Your task to perform on an android device: Add alienware aurora to the cart on costco.com Image 0: 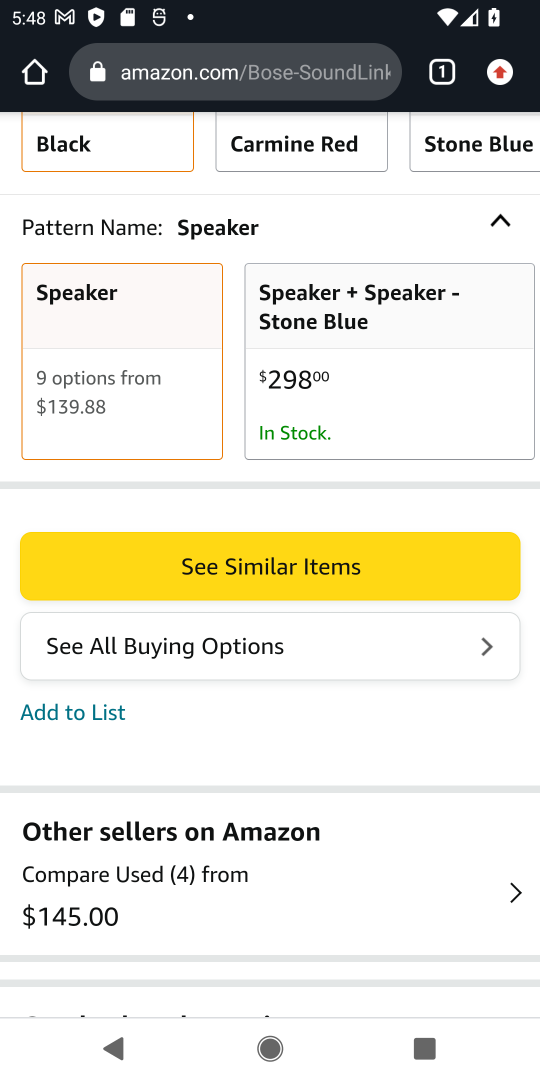
Step 0: press home button
Your task to perform on an android device: Add alienware aurora to the cart on costco.com Image 1: 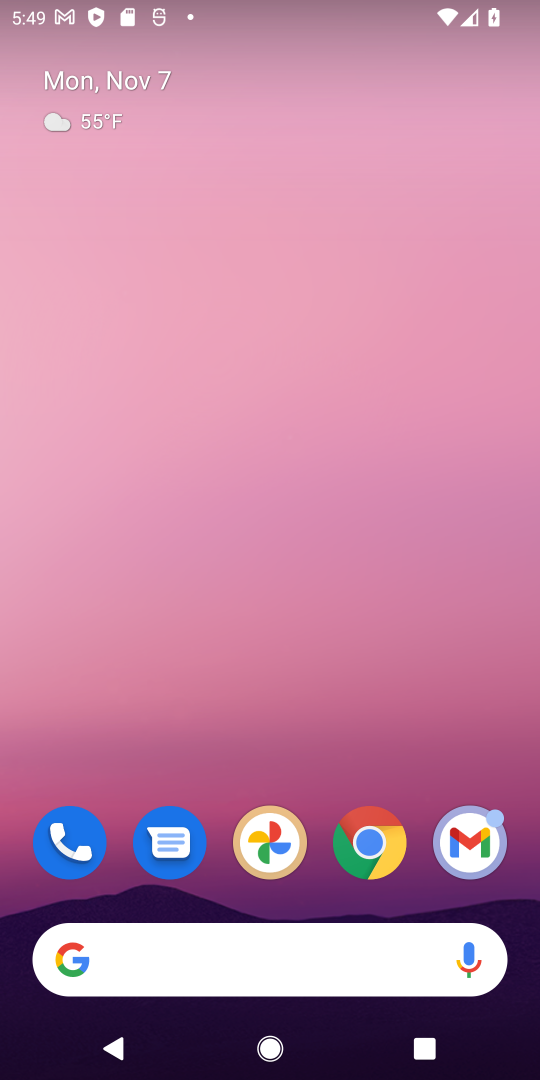
Step 1: click (181, 962)
Your task to perform on an android device: Add alienware aurora to the cart on costco.com Image 2: 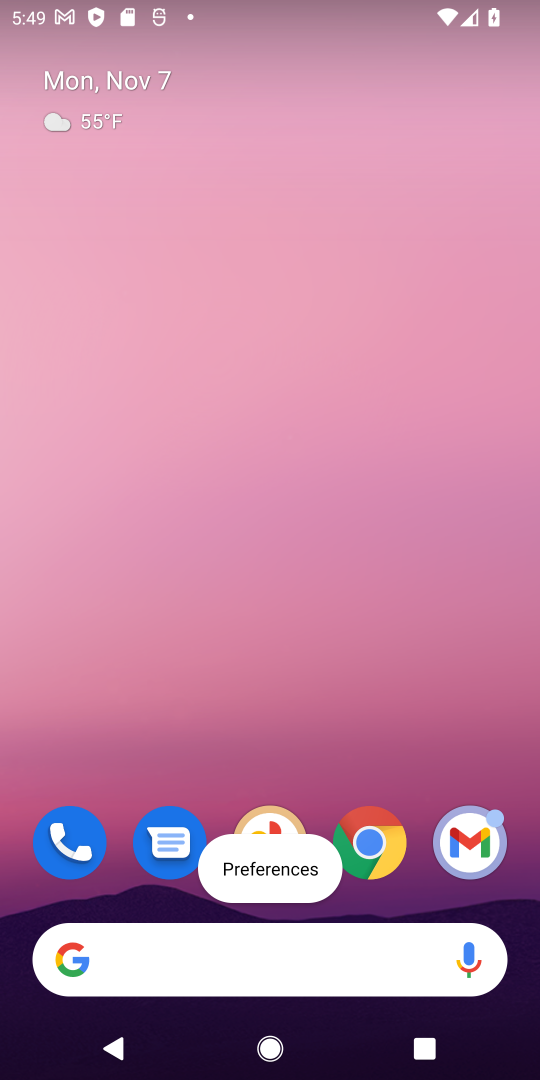
Step 2: click (140, 958)
Your task to perform on an android device: Add alienware aurora to the cart on costco.com Image 3: 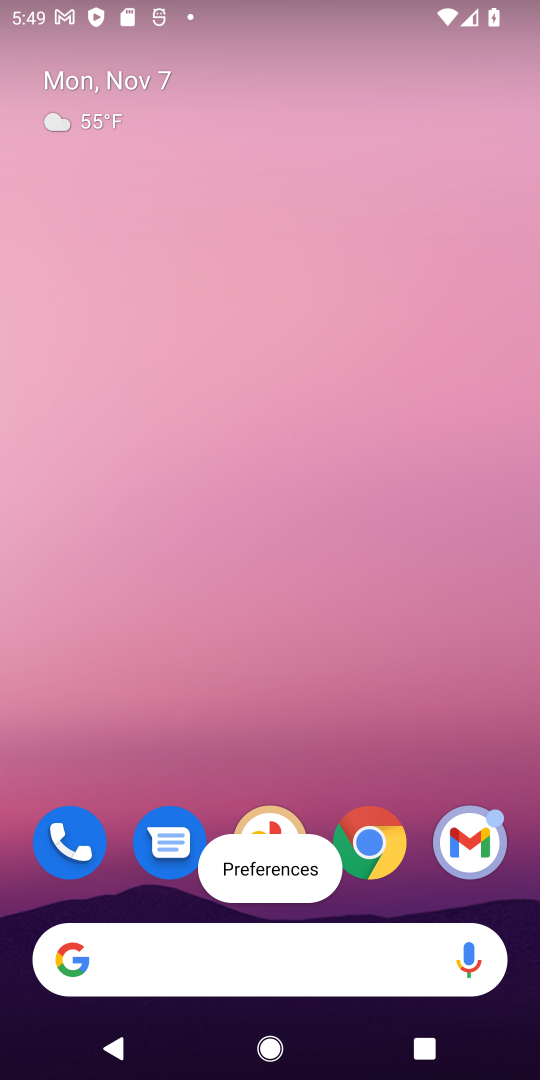
Step 3: click (132, 965)
Your task to perform on an android device: Add alienware aurora to the cart on costco.com Image 4: 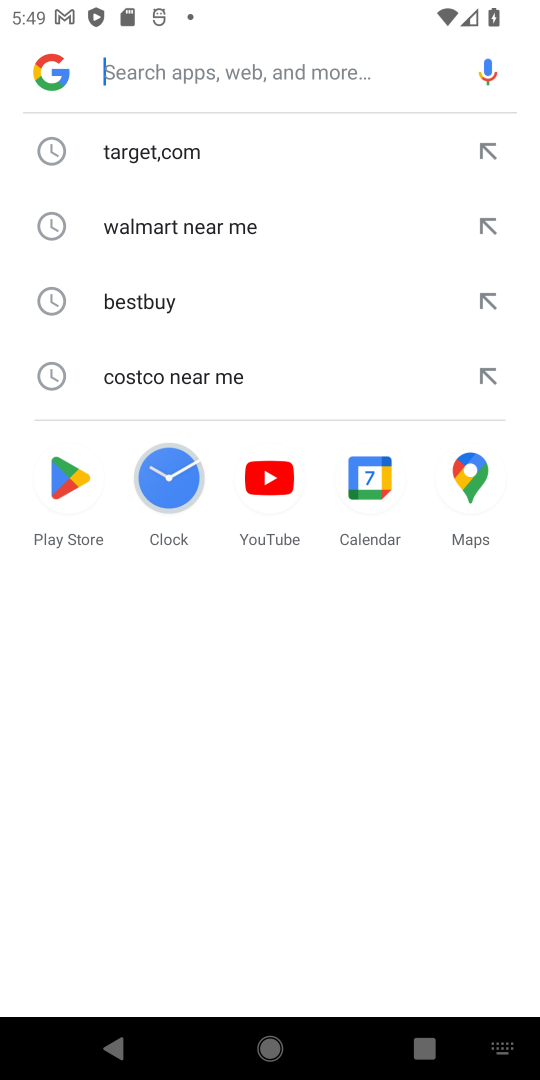
Step 4: click (173, 76)
Your task to perform on an android device: Add alienware aurora to the cart on costco.com Image 5: 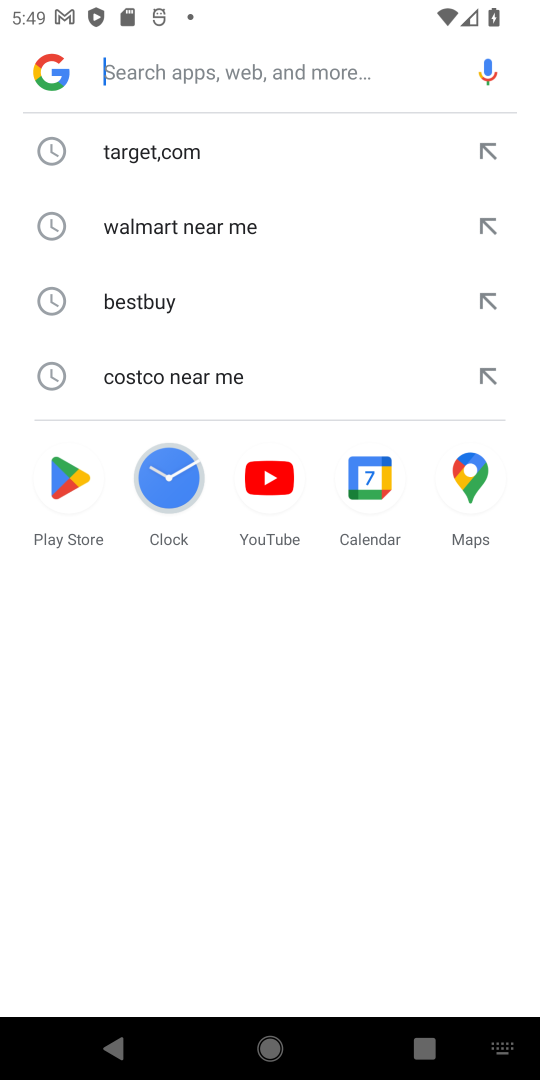
Step 5: type "costco.com"
Your task to perform on an android device: Add alienware aurora to the cart on costco.com Image 6: 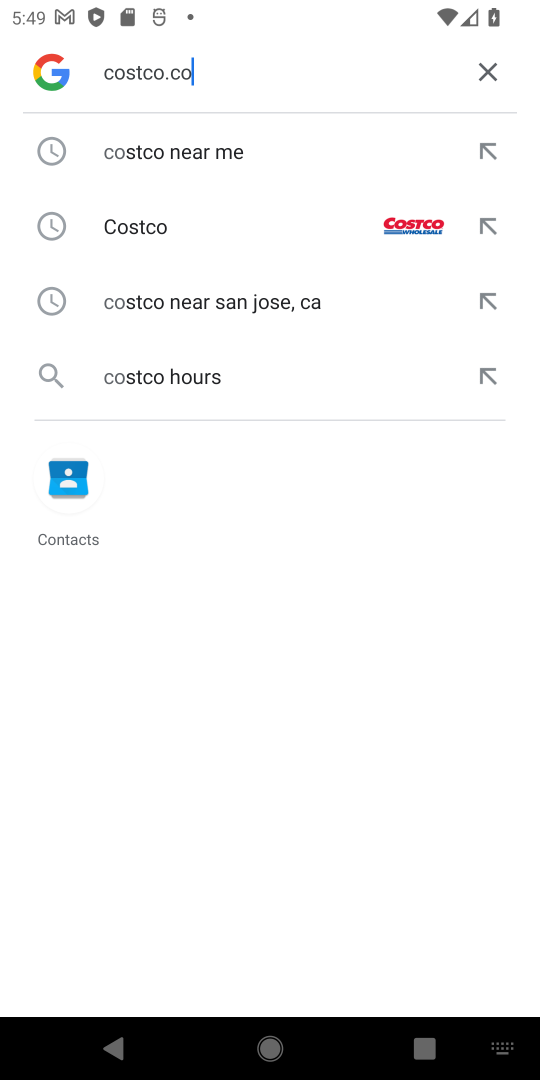
Step 6: press enter
Your task to perform on an android device: Add alienware aurora to the cart on costco.com Image 7: 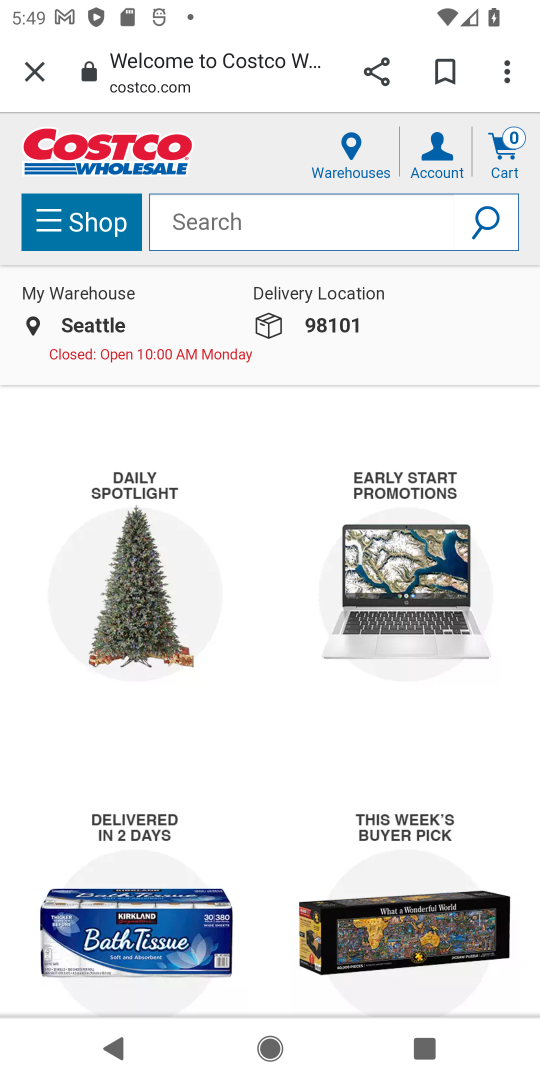
Step 7: click (234, 220)
Your task to perform on an android device: Add alienware aurora to the cart on costco.com Image 8: 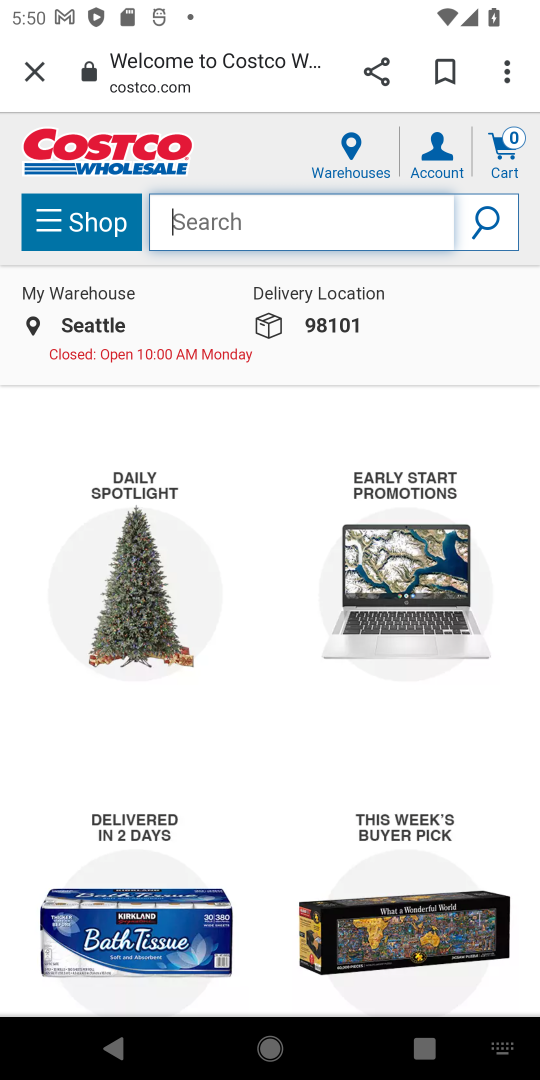
Step 8: press enter
Your task to perform on an android device: Add alienware aurora to the cart on costco.com Image 9: 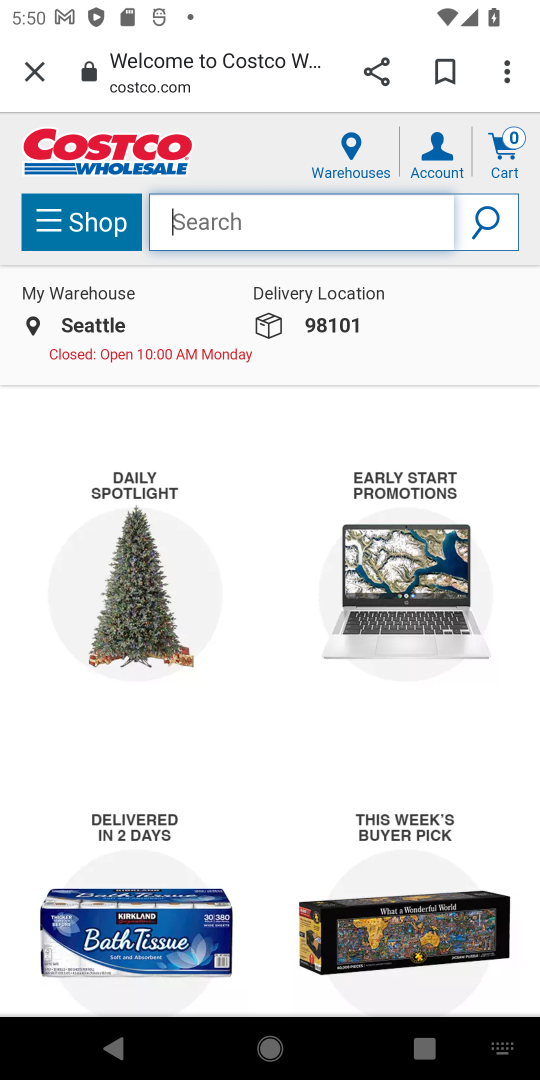
Step 9: type "alienware aurora "
Your task to perform on an android device: Add alienware aurora to the cart on costco.com Image 10: 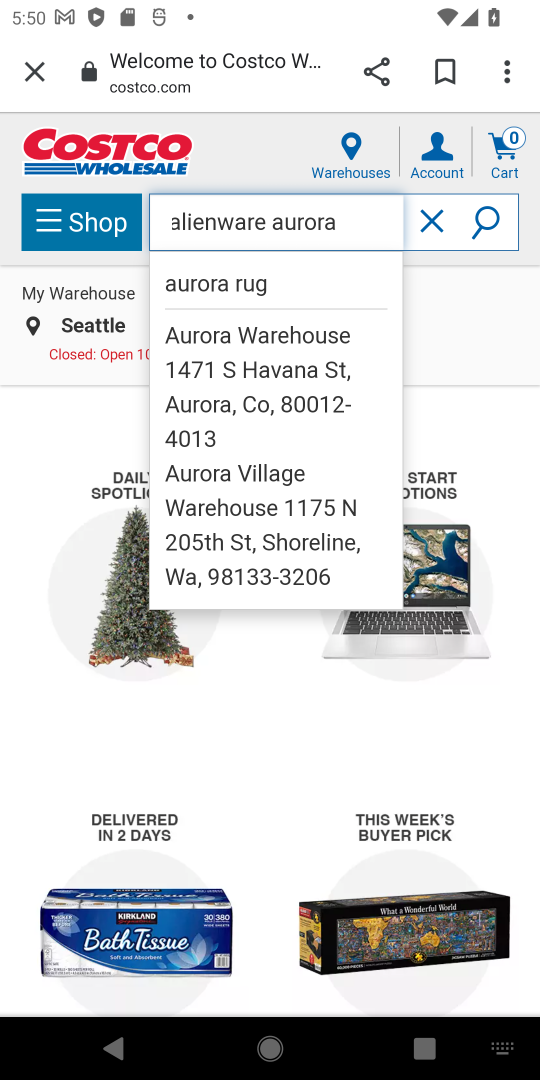
Step 10: press enter
Your task to perform on an android device: Add alienware aurora to the cart on costco.com Image 11: 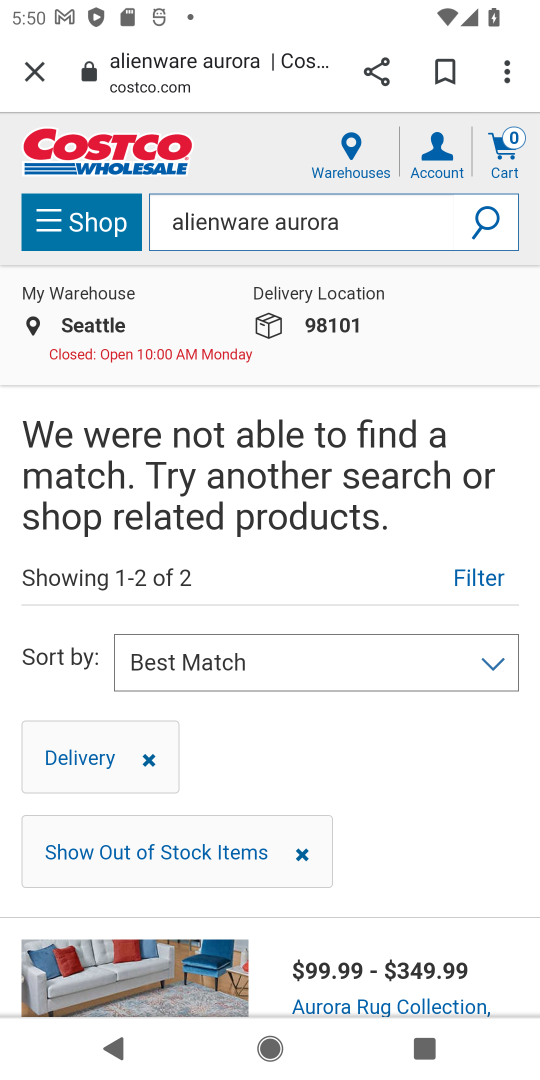
Step 11: task complete